Your task to perform on an android device: turn off notifications in google photos Image 0: 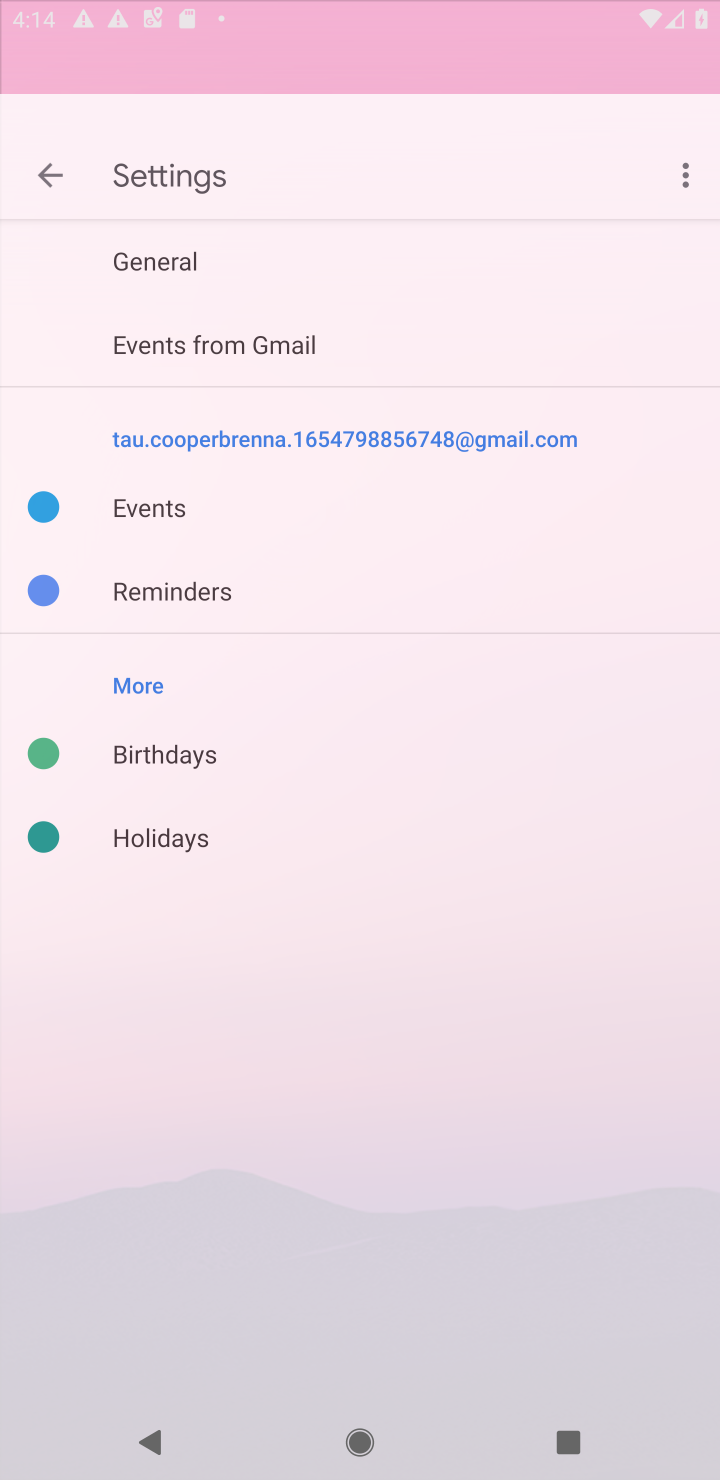
Step 0: press home button
Your task to perform on an android device: turn off notifications in google photos Image 1: 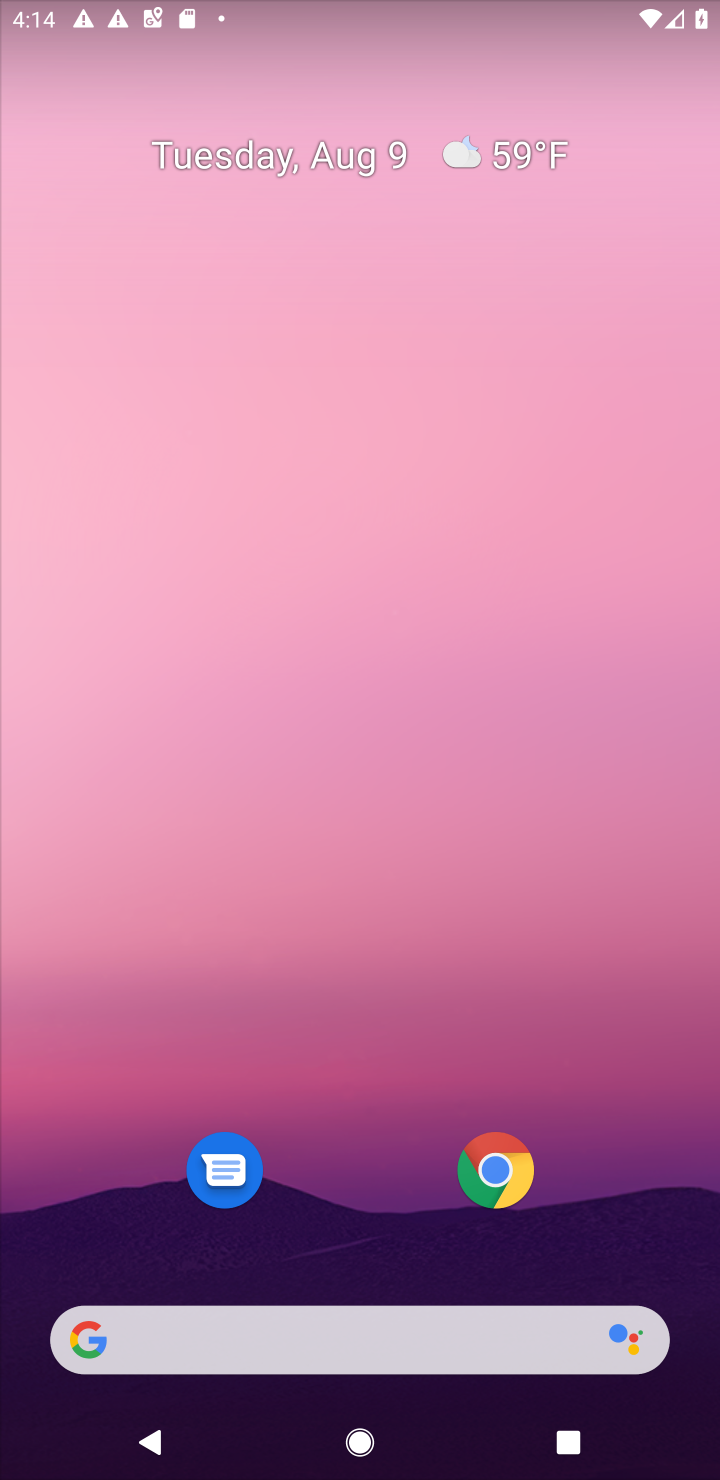
Step 1: drag from (349, 1190) to (279, 253)
Your task to perform on an android device: turn off notifications in google photos Image 2: 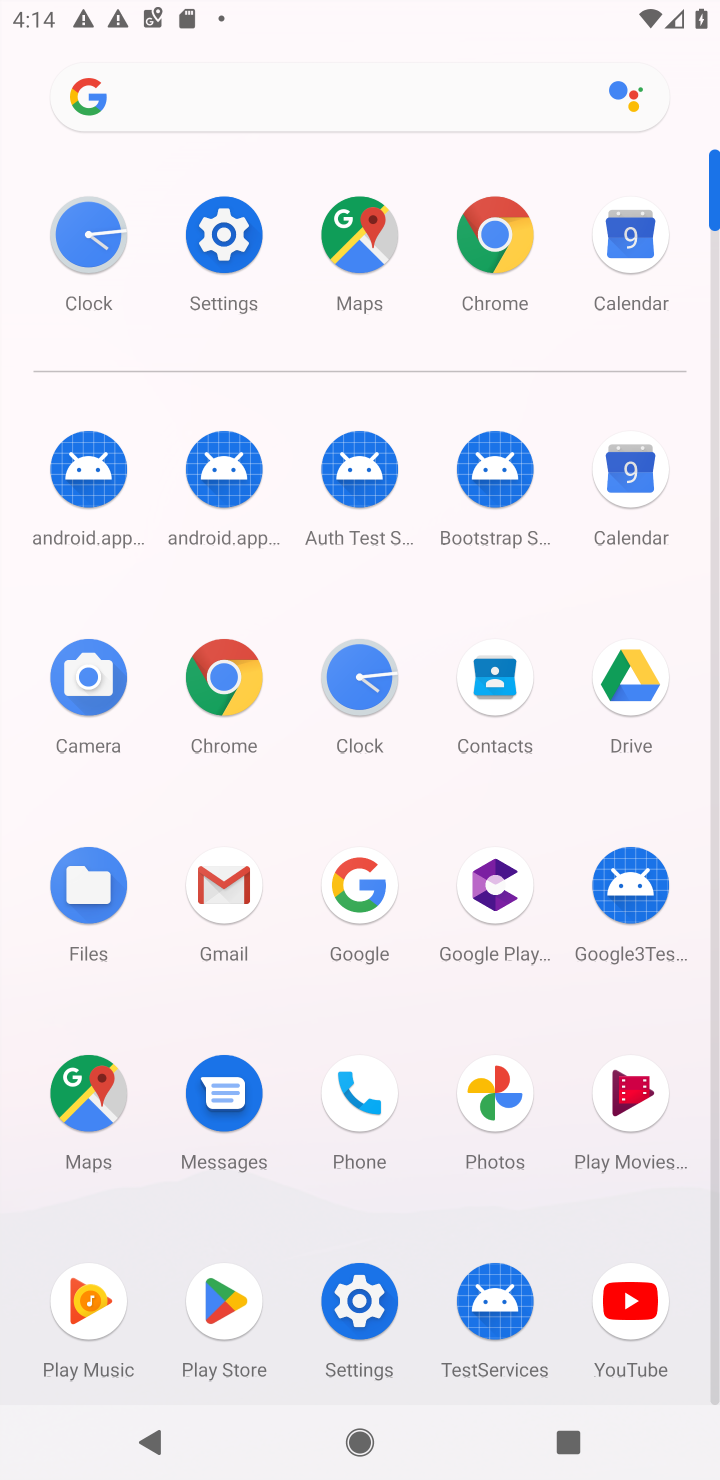
Step 2: click (493, 1079)
Your task to perform on an android device: turn off notifications in google photos Image 3: 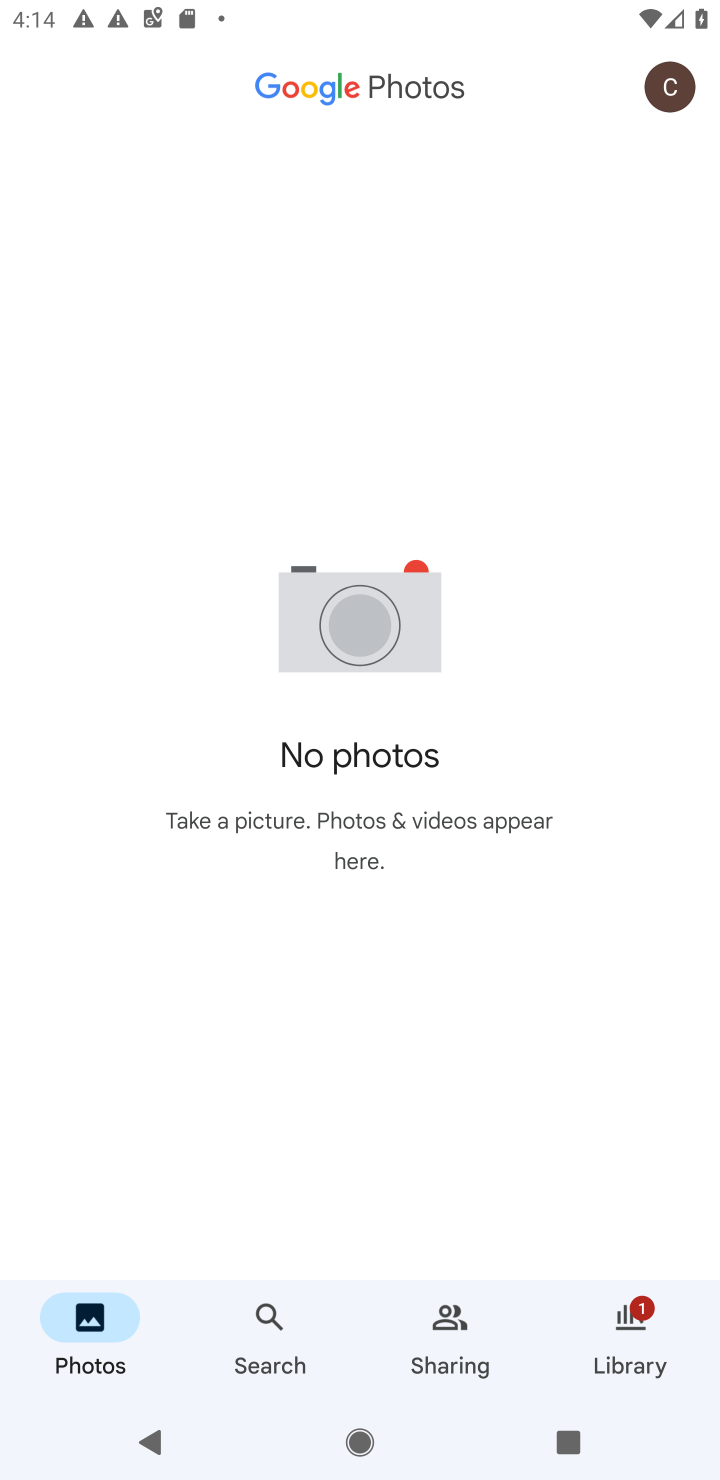
Step 3: click (667, 96)
Your task to perform on an android device: turn off notifications in google photos Image 4: 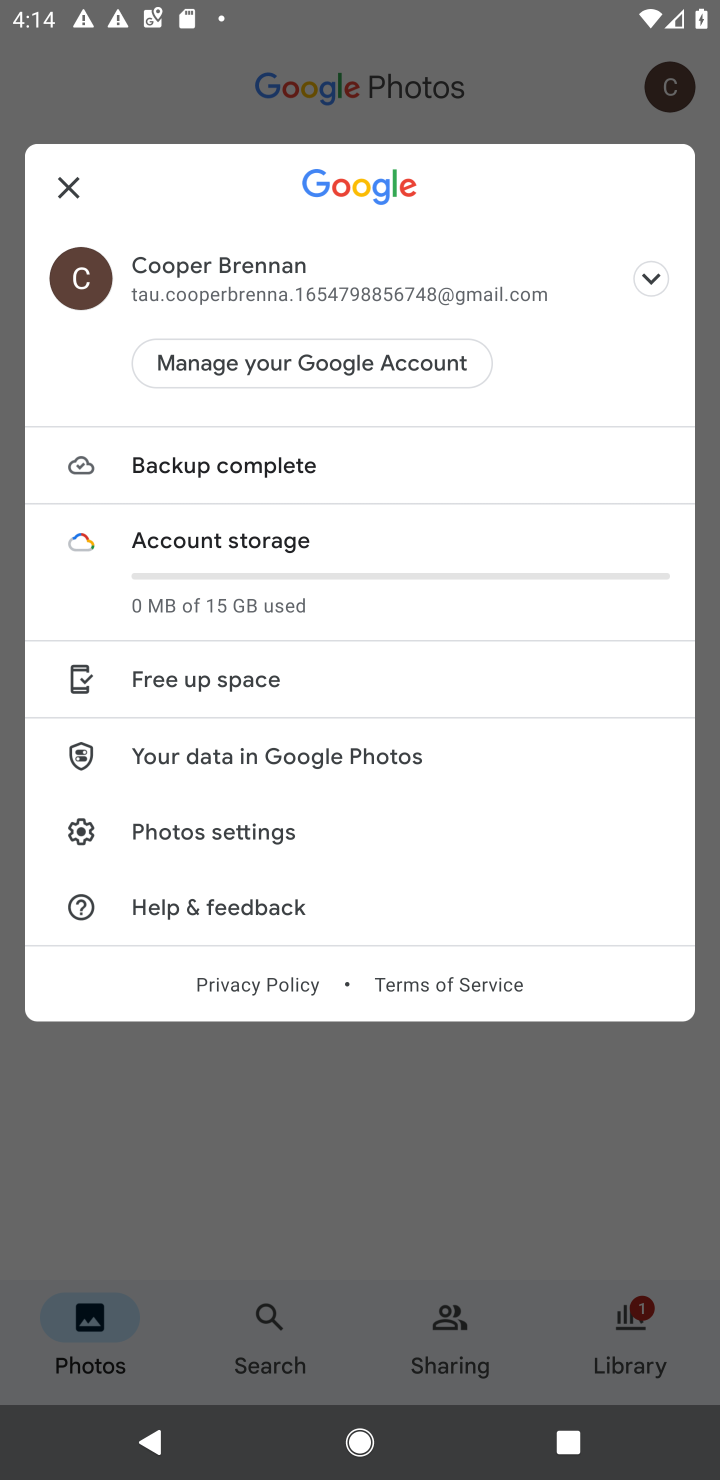
Step 4: click (209, 826)
Your task to perform on an android device: turn off notifications in google photos Image 5: 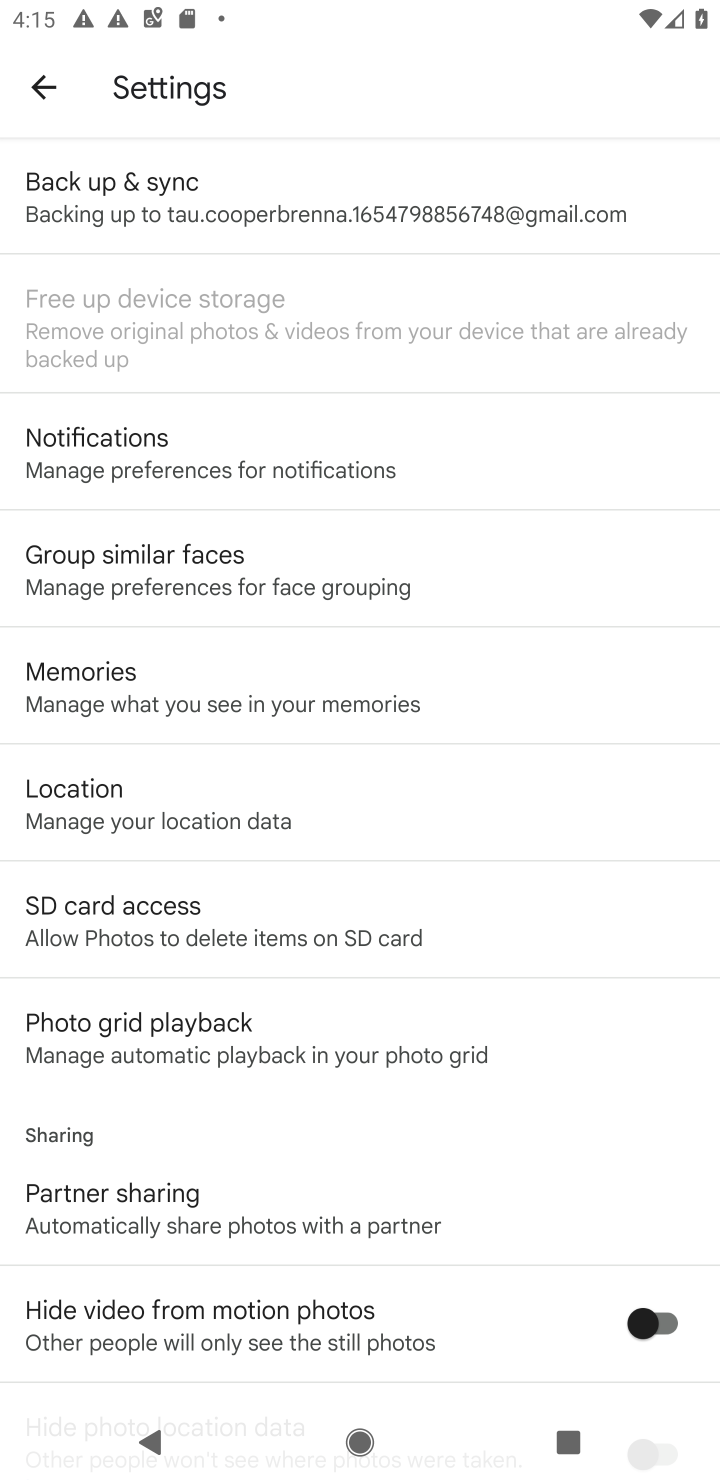
Step 5: click (125, 483)
Your task to perform on an android device: turn off notifications in google photos Image 6: 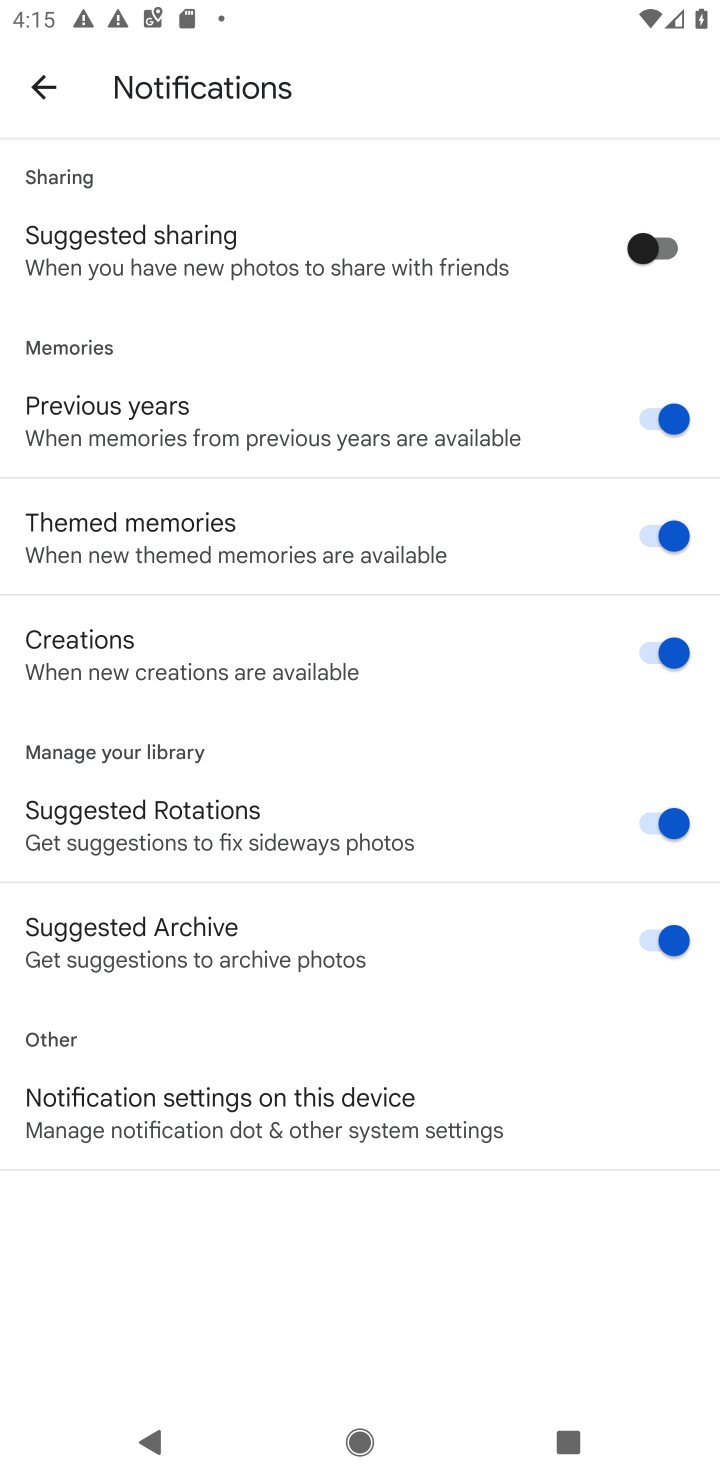
Step 6: click (178, 1102)
Your task to perform on an android device: turn off notifications in google photos Image 7: 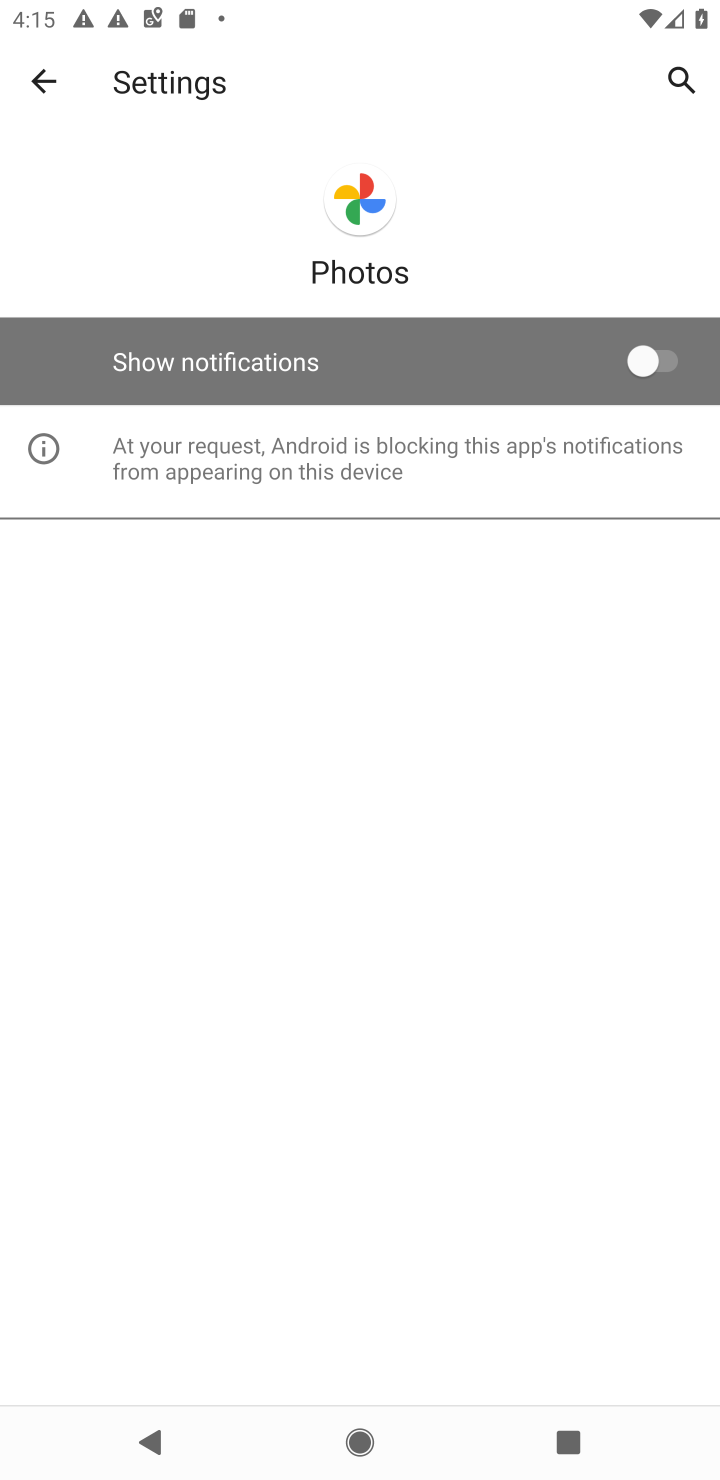
Step 7: task complete